Your task to perform on an android device: Search for Mexican restaurants on Maps Image 0: 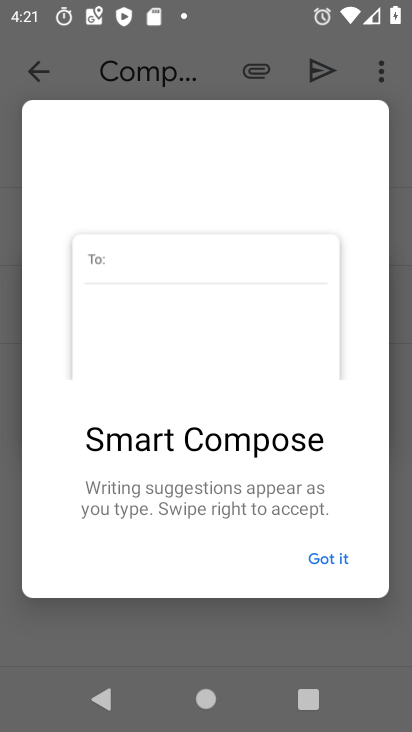
Step 0: press home button
Your task to perform on an android device: Search for Mexican restaurants on Maps Image 1: 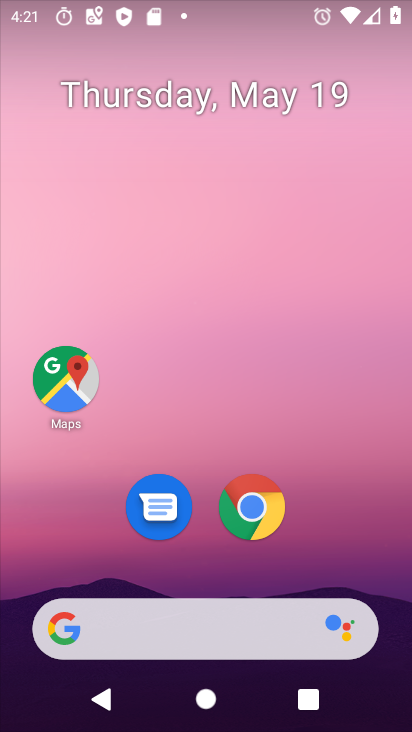
Step 1: click (89, 408)
Your task to perform on an android device: Search for Mexican restaurants on Maps Image 2: 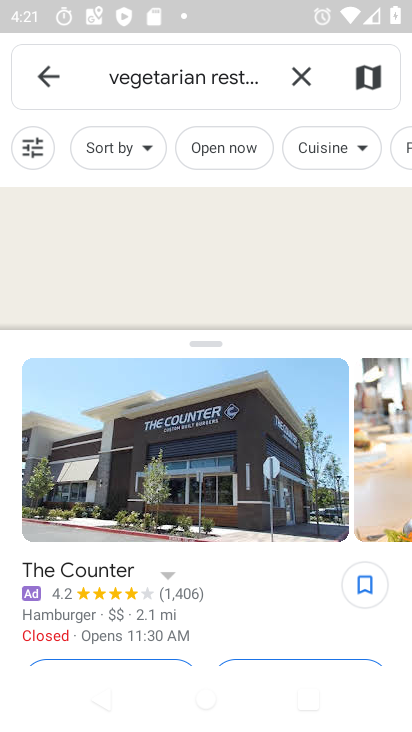
Step 2: click (301, 74)
Your task to perform on an android device: Search for Mexican restaurants on Maps Image 3: 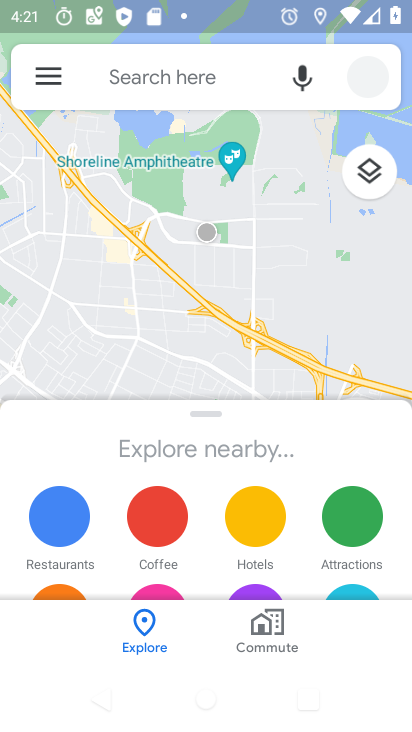
Step 3: click (107, 74)
Your task to perform on an android device: Search for Mexican restaurants on Maps Image 4: 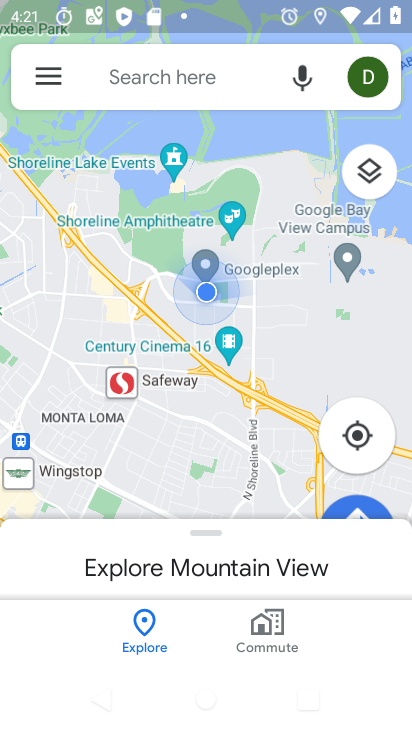
Step 4: type " Mexican restaurants"
Your task to perform on an android device: Search for Mexican restaurants on Maps Image 5: 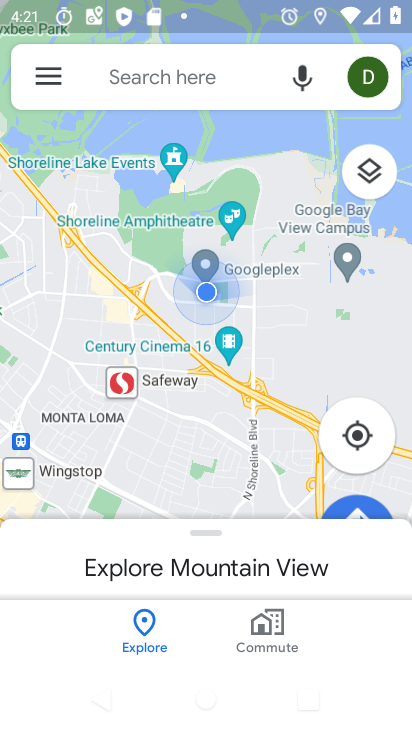
Step 5: click (124, 70)
Your task to perform on an android device: Search for Mexican restaurants on Maps Image 6: 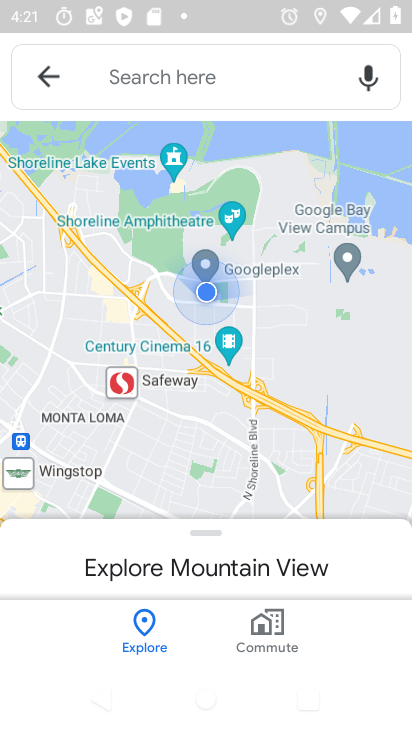
Step 6: click (107, 75)
Your task to perform on an android device: Search for Mexican restaurants on Maps Image 7: 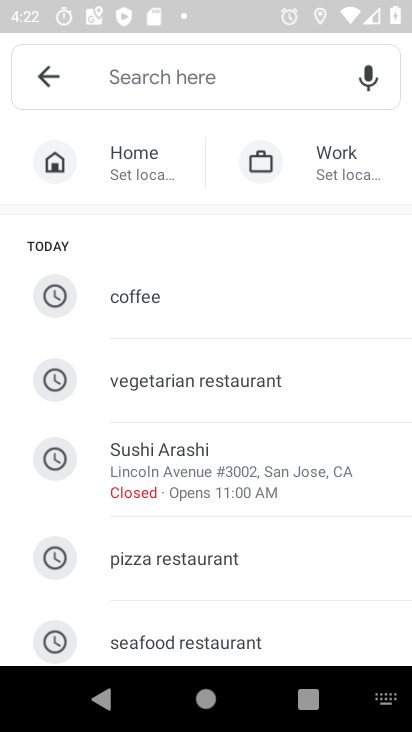
Step 7: type " Mexican restaurants"
Your task to perform on an android device: Search for Mexican restaurants on Maps Image 8: 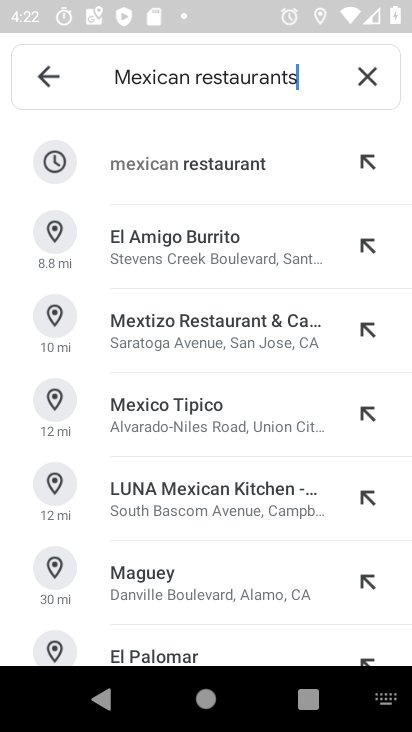
Step 8: click (219, 175)
Your task to perform on an android device: Search for Mexican restaurants on Maps Image 9: 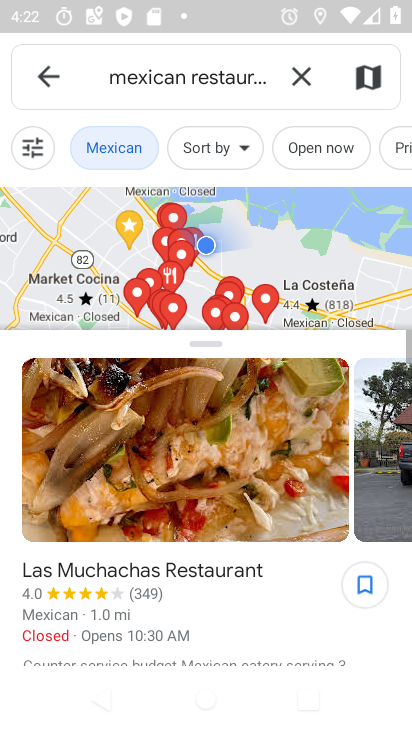
Step 9: task complete